Your task to perform on an android device: turn on data saver in the chrome app Image 0: 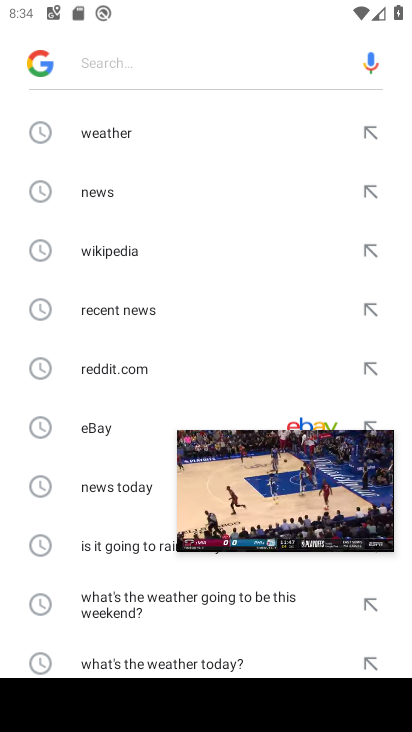
Step 0: click (362, 450)
Your task to perform on an android device: turn on data saver in the chrome app Image 1: 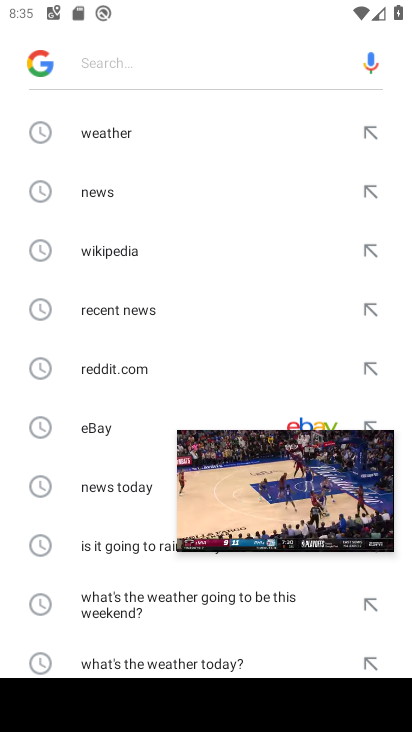
Step 1: press home button
Your task to perform on an android device: turn on data saver in the chrome app Image 2: 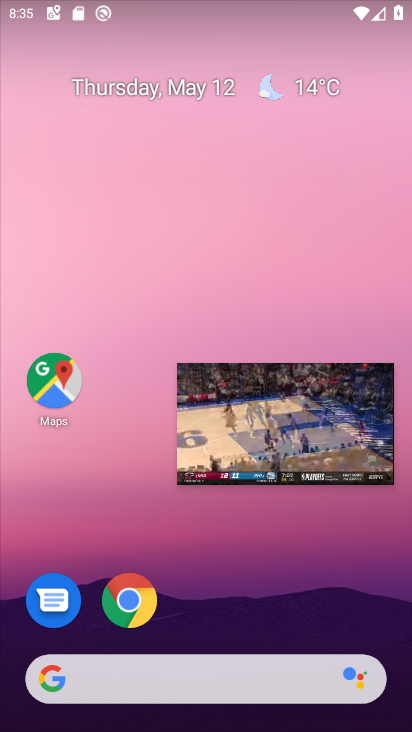
Step 2: drag from (251, 613) to (119, 72)
Your task to perform on an android device: turn on data saver in the chrome app Image 3: 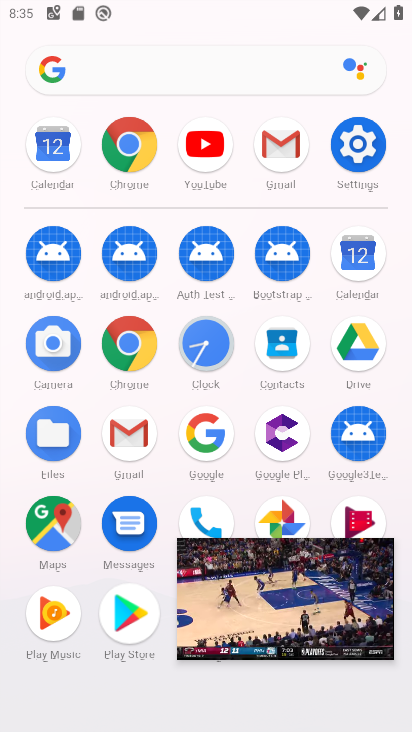
Step 3: click (132, 130)
Your task to perform on an android device: turn on data saver in the chrome app Image 4: 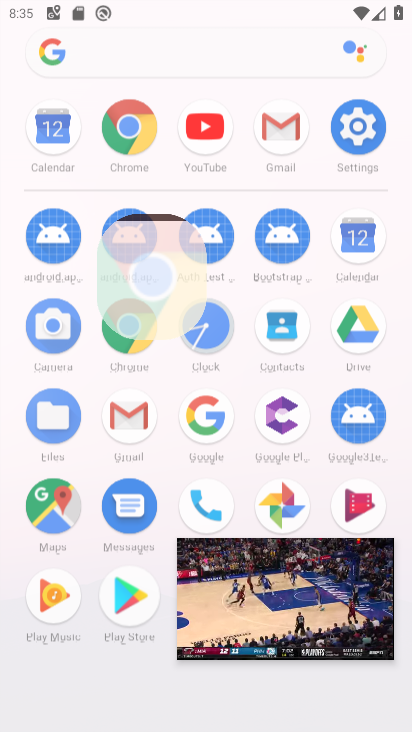
Step 4: click (132, 130)
Your task to perform on an android device: turn on data saver in the chrome app Image 5: 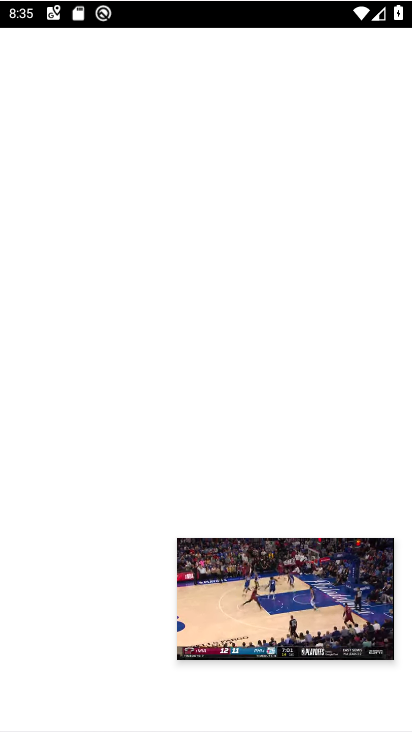
Step 5: click (132, 132)
Your task to perform on an android device: turn on data saver in the chrome app Image 6: 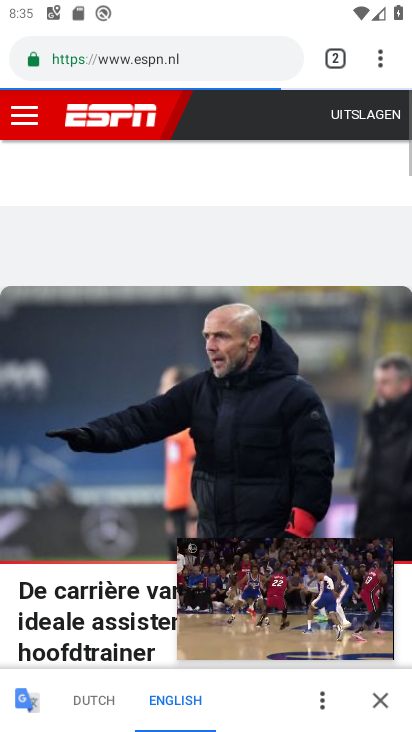
Step 6: drag from (125, 525) to (189, 204)
Your task to perform on an android device: turn on data saver in the chrome app Image 7: 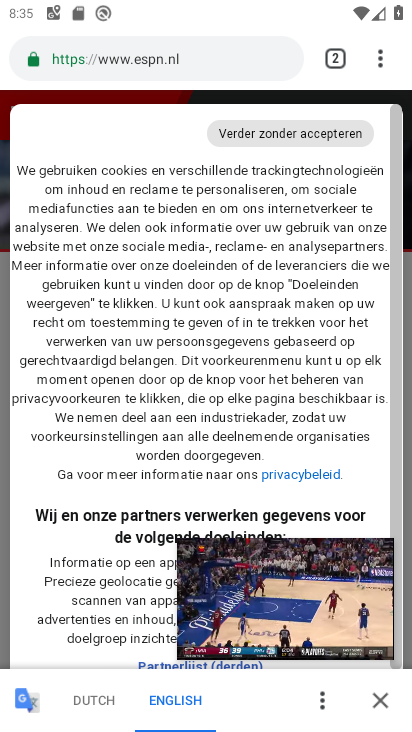
Step 7: drag from (379, 63) to (160, 623)
Your task to perform on an android device: turn on data saver in the chrome app Image 8: 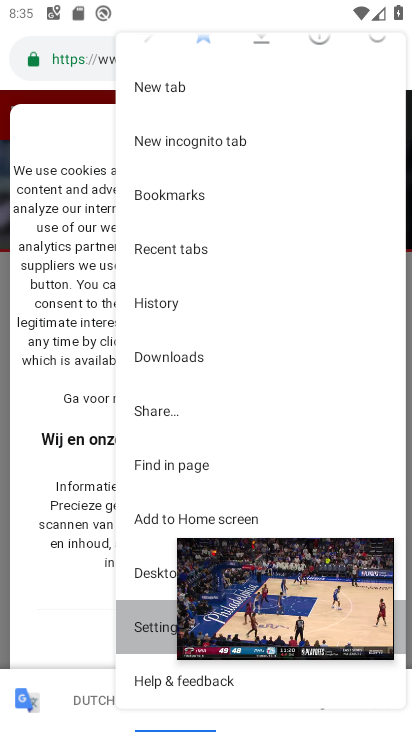
Step 8: click (160, 623)
Your task to perform on an android device: turn on data saver in the chrome app Image 9: 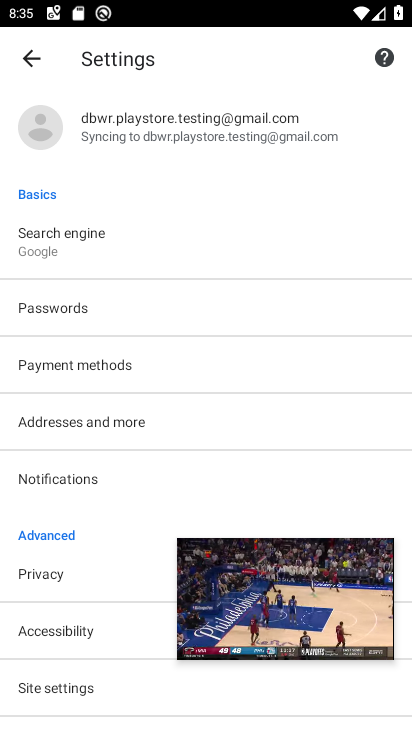
Step 9: drag from (68, 634) to (130, 259)
Your task to perform on an android device: turn on data saver in the chrome app Image 10: 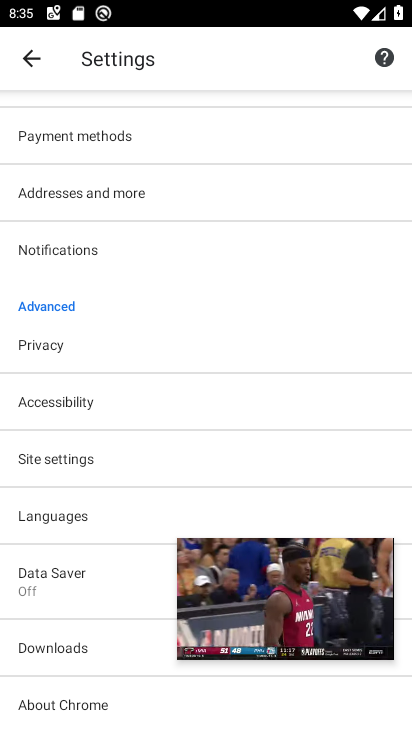
Step 10: click (44, 575)
Your task to perform on an android device: turn on data saver in the chrome app Image 11: 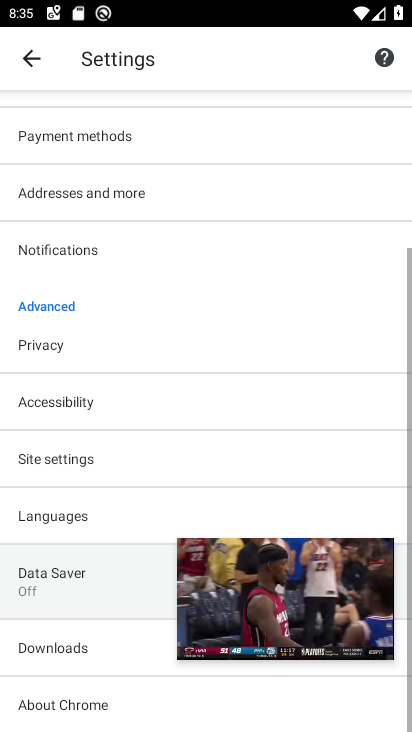
Step 11: click (44, 575)
Your task to perform on an android device: turn on data saver in the chrome app Image 12: 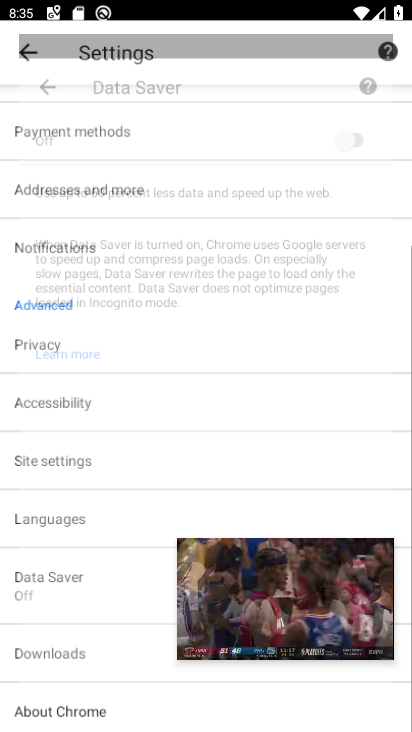
Step 12: click (45, 574)
Your task to perform on an android device: turn on data saver in the chrome app Image 13: 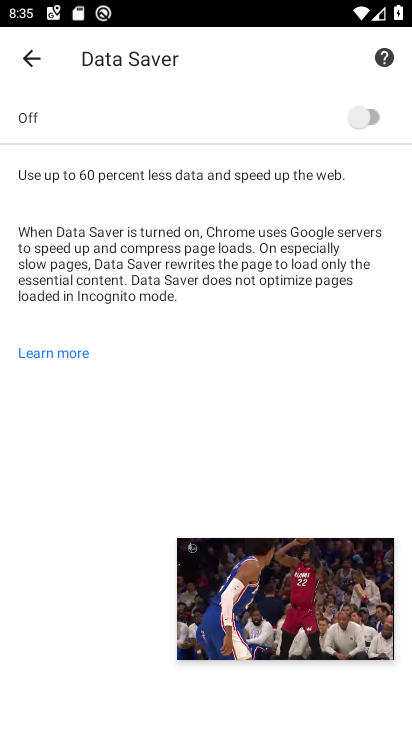
Step 13: click (358, 114)
Your task to perform on an android device: turn on data saver in the chrome app Image 14: 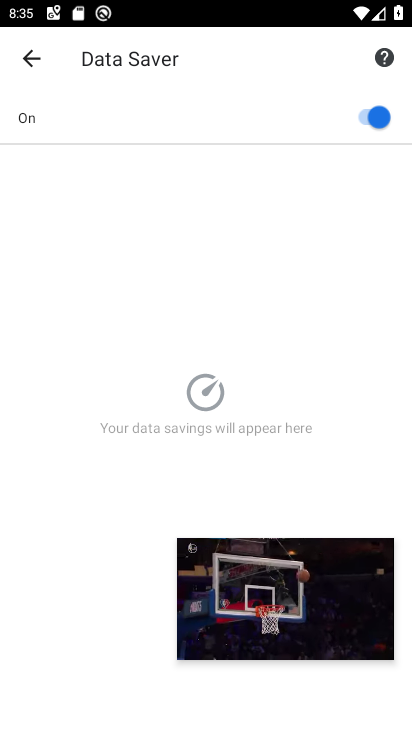
Step 14: task complete